Your task to perform on an android device: turn off location Image 0: 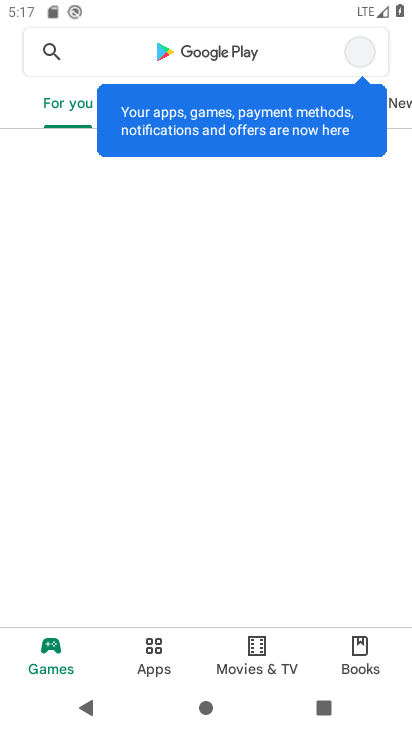
Step 0: press home button
Your task to perform on an android device: turn off location Image 1: 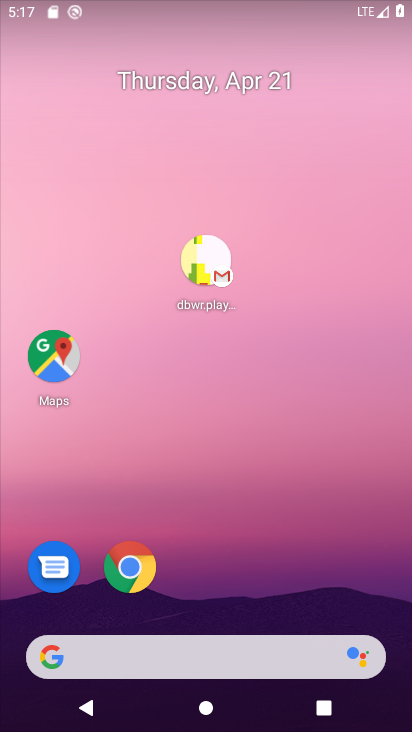
Step 1: drag from (209, 600) to (300, 72)
Your task to perform on an android device: turn off location Image 2: 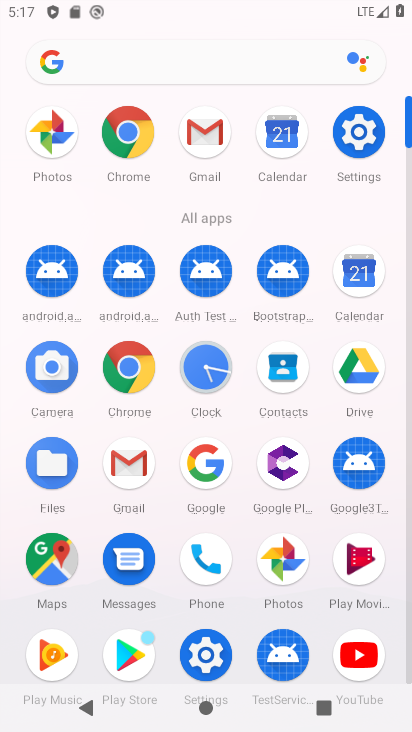
Step 2: click (202, 652)
Your task to perform on an android device: turn off location Image 3: 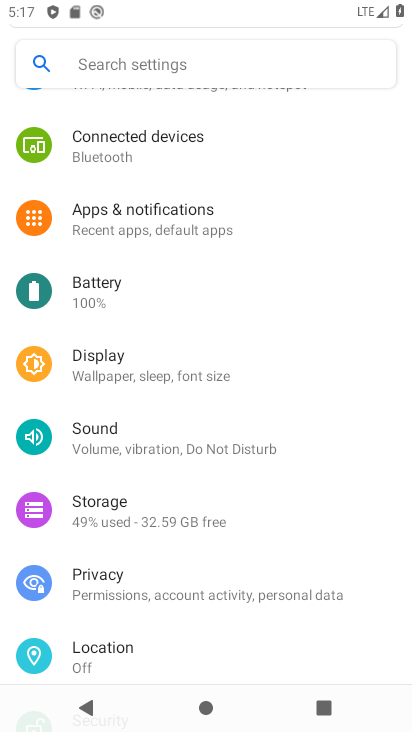
Step 3: click (124, 653)
Your task to perform on an android device: turn off location Image 4: 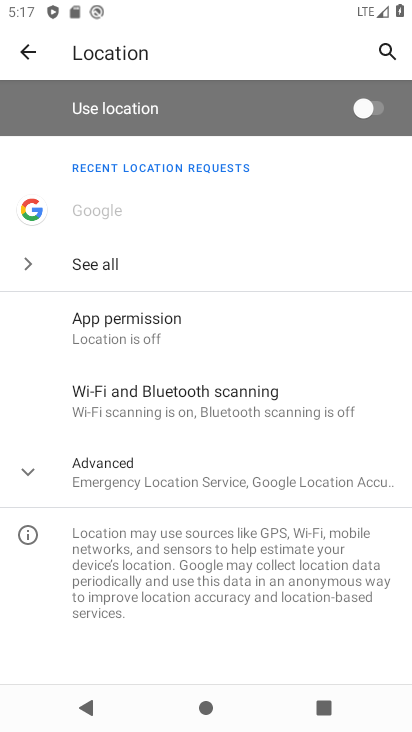
Step 4: task complete